Your task to perform on an android device: snooze an email in the gmail app Image 0: 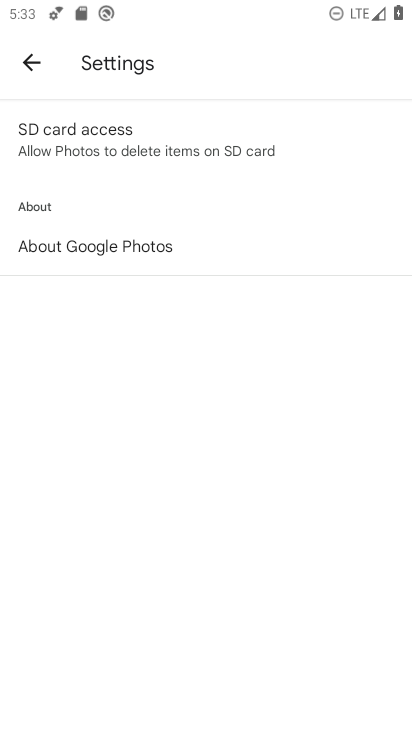
Step 0: press home button
Your task to perform on an android device: snooze an email in the gmail app Image 1: 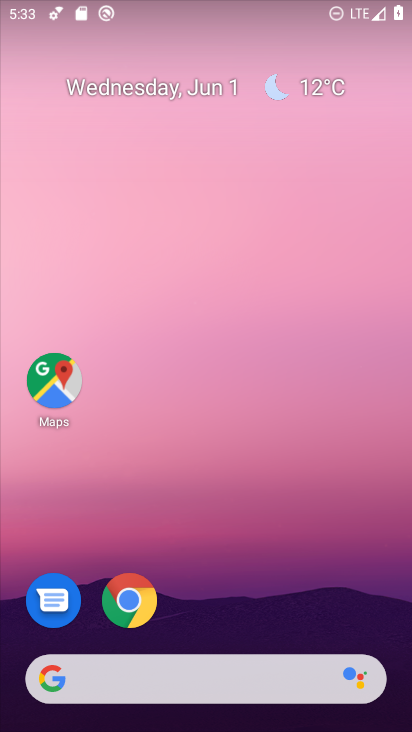
Step 1: drag from (379, 624) to (343, 194)
Your task to perform on an android device: snooze an email in the gmail app Image 2: 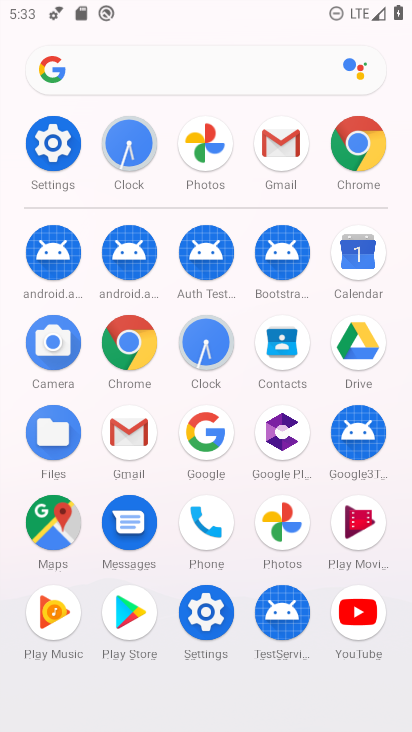
Step 2: click (129, 433)
Your task to perform on an android device: snooze an email in the gmail app Image 3: 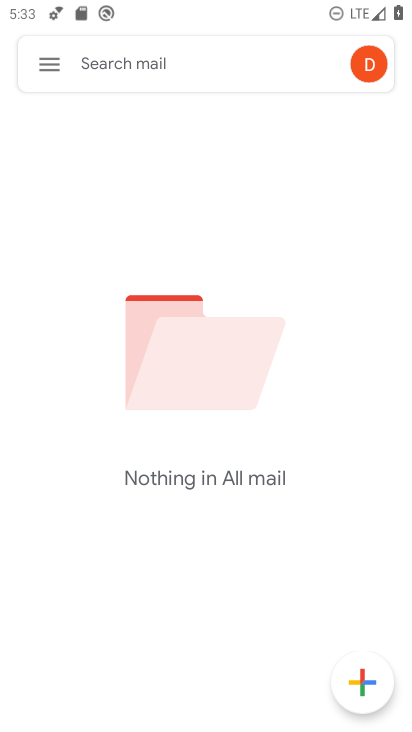
Step 3: click (45, 66)
Your task to perform on an android device: snooze an email in the gmail app Image 4: 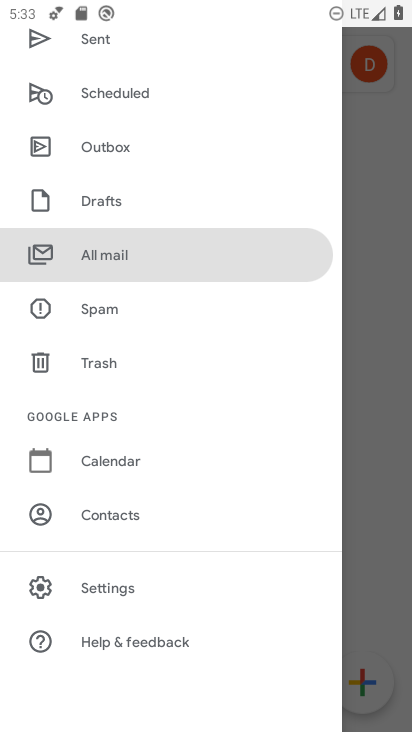
Step 4: click (135, 257)
Your task to perform on an android device: snooze an email in the gmail app Image 5: 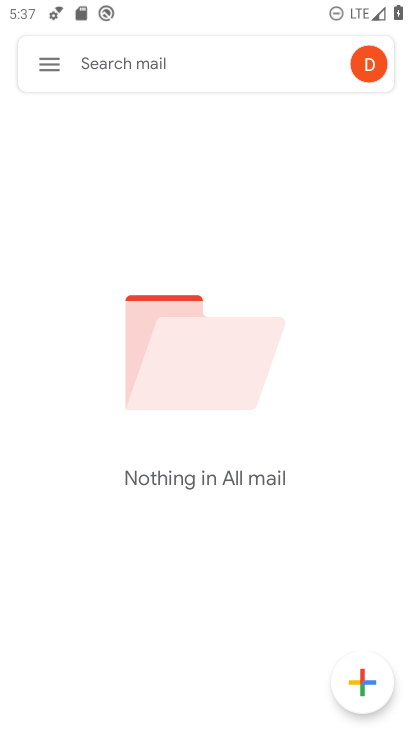
Step 5: task complete